Your task to perform on an android device: check battery use Image 0: 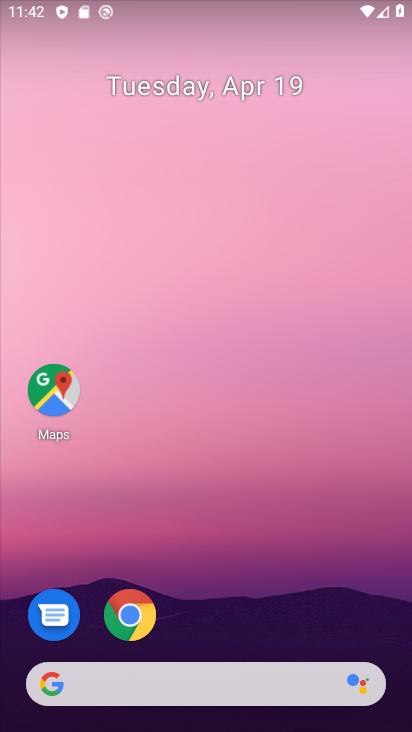
Step 0: drag from (314, 361) to (295, 240)
Your task to perform on an android device: check battery use Image 1: 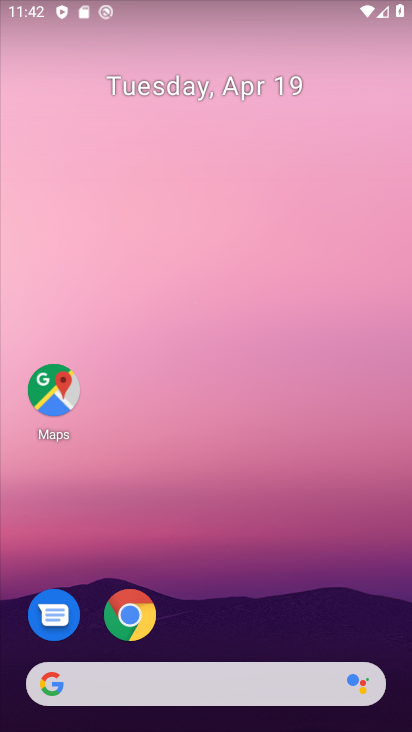
Step 1: drag from (367, 596) to (311, 91)
Your task to perform on an android device: check battery use Image 2: 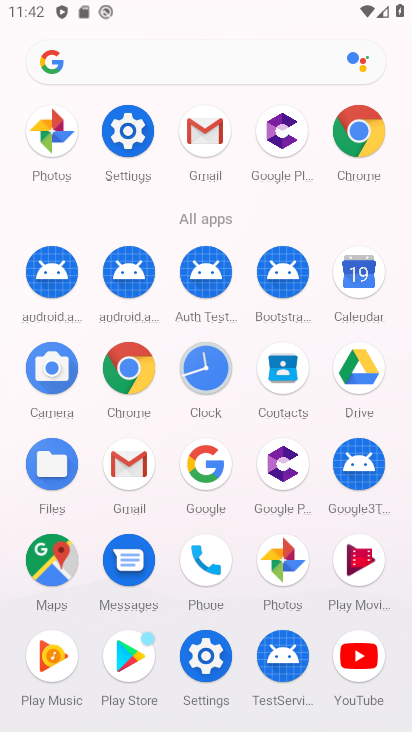
Step 2: click (116, 131)
Your task to perform on an android device: check battery use Image 3: 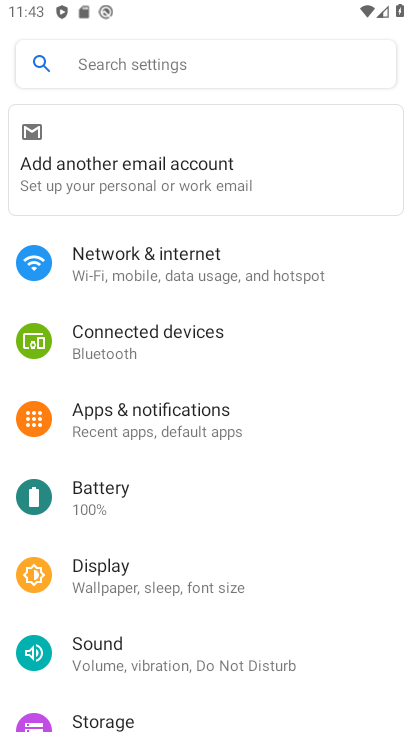
Step 3: click (99, 493)
Your task to perform on an android device: check battery use Image 4: 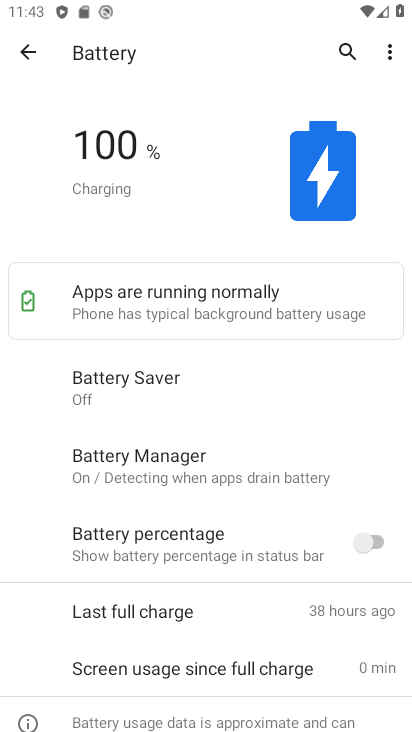
Step 4: task complete